Your task to perform on an android device: uninstall "Booking.com: Hotels and more" Image 0: 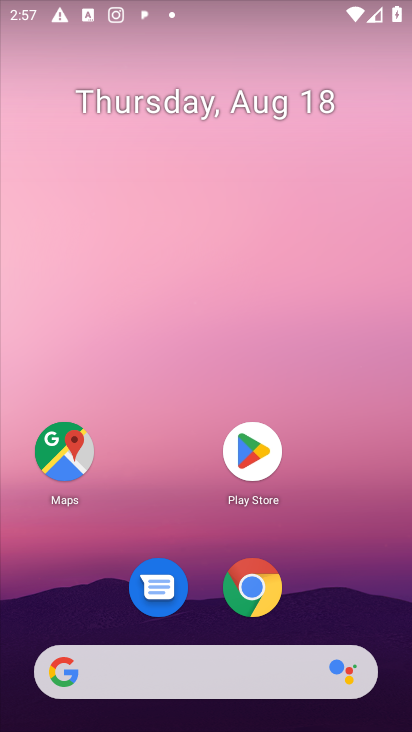
Step 0: click (241, 442)
Your task to perform on an android device: uninstall "Booking.com: Hotels and more" Image 1: 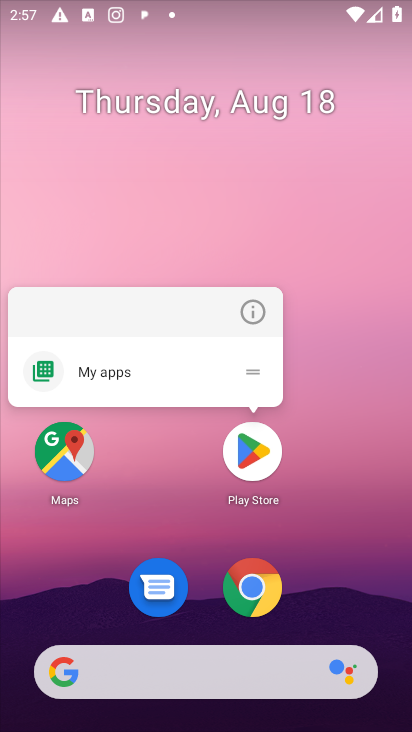
Step 1: click (246, 447)
Your task to perform on an android device: uninstall "Booking.com: Hotels and more" Image 2: 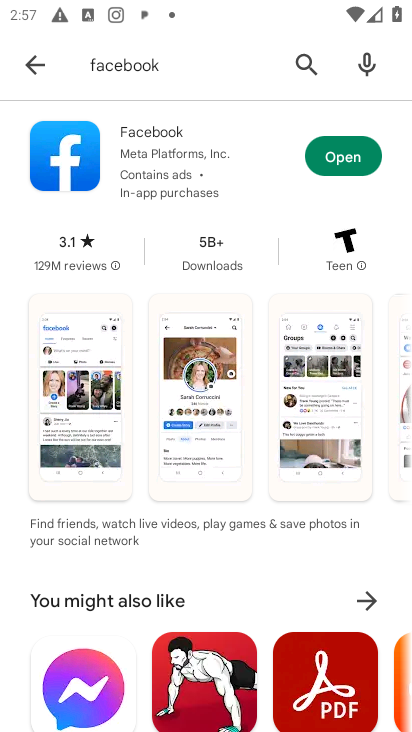
Step 2: click (305, 57)
Your task to perform on an android device: uninstall "Booking.com: Hotels and more" Image 3: 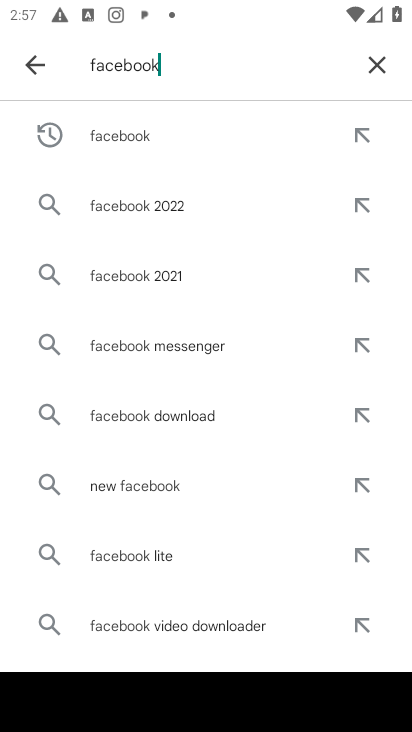
Step 3: click (369, 48)
Your task to perform on an android device: uninstall "Booking.com: Hotels and more" Image 4: 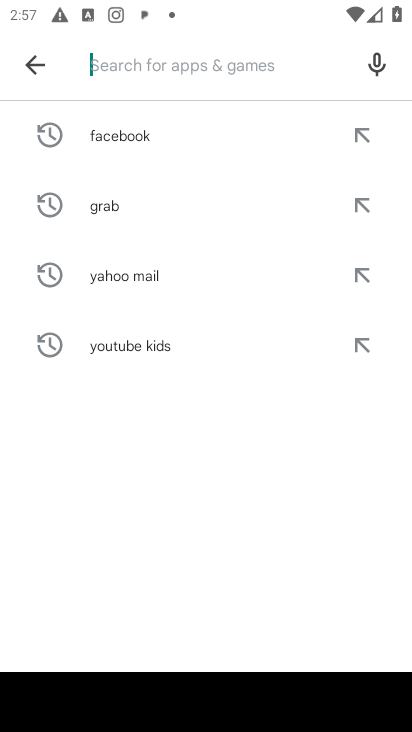
Step 4: type "Booking.com: Hotels and more"
Your task to perform on an android device: uninstall "Booking.com: Hotels and more" Image 5: 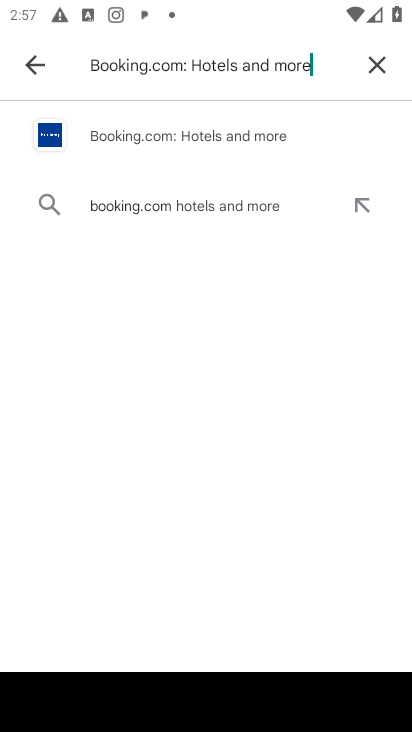
Step 5: click (167, 136)
Your task to perform on an android device: uninstall "Booking.com: Hotels and more" Image 6: 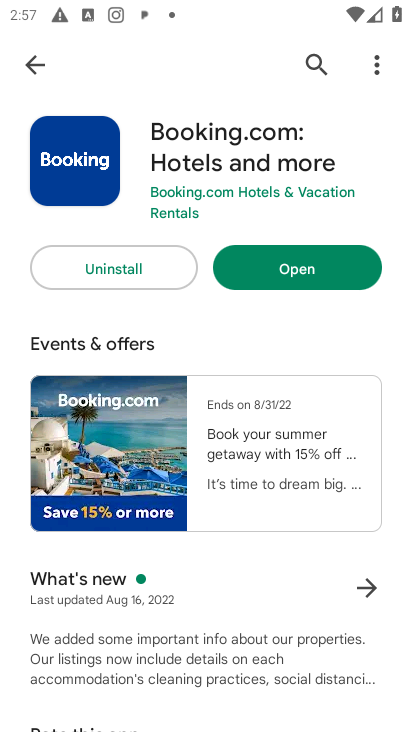
Step 6: click (122, 266)
Your task to perform on an android device: uninstall "Booking.com: Hotels and more" Image 7: 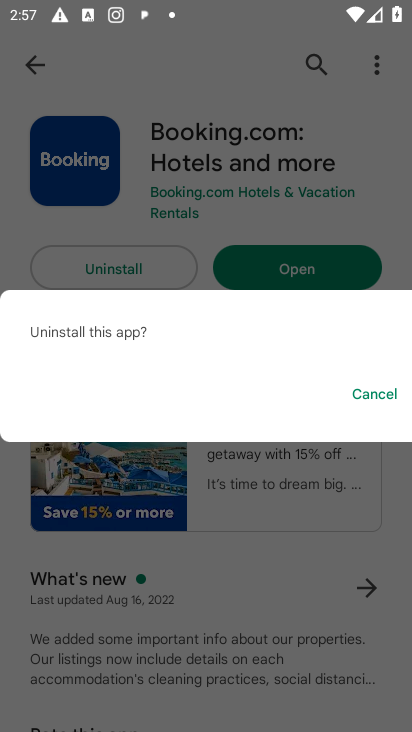
Step 7: click (113, 267)
Your task to perform on an android device: uninstall "Booking.com: Hotels and more" Image 8: 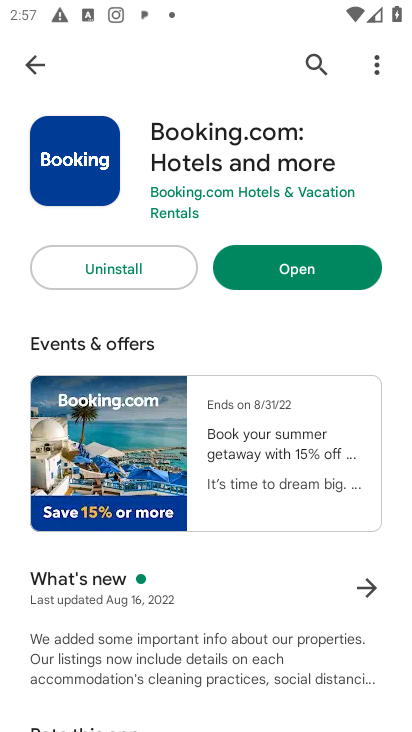
Step 8: click (125, 267)
Your task to perform on an android device: uninstall "Booking.com: Hotels and more" Image 9: 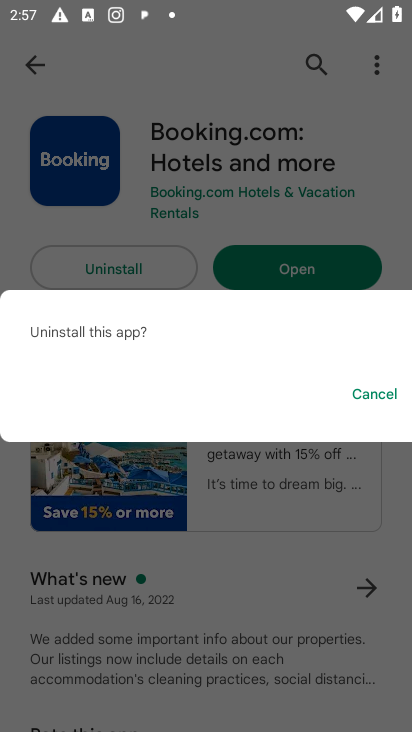
Step 9: click (110, 329)
Your task to perform on an android device: uninstall "Booking.com: Hotels and more" Image 10: 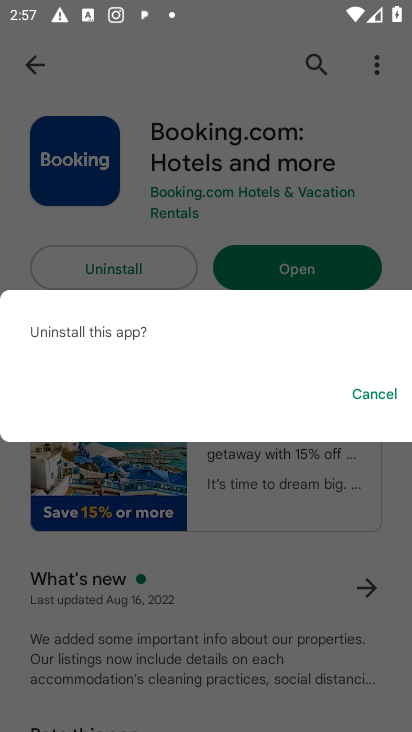
Step 10: click (351, 397)
Your task to perform on an android device: uninstall "Booking.com: Hotels and more" Image 11: 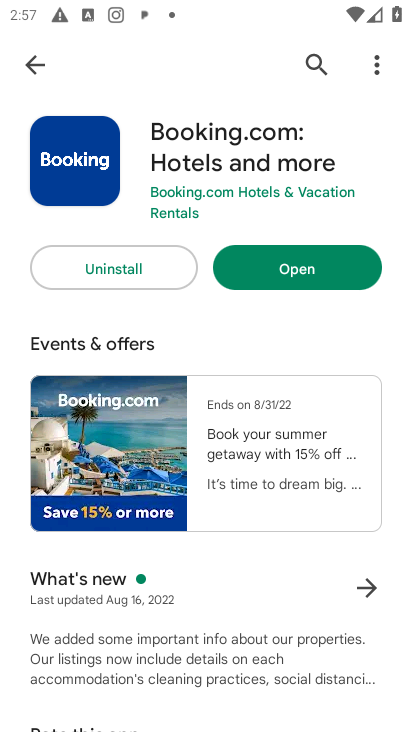
Step 11: drag from (216, 592) to (193, 666)
Your task to perform on an android device: uninstall "Booking.com: Hotels and more" Image 12: 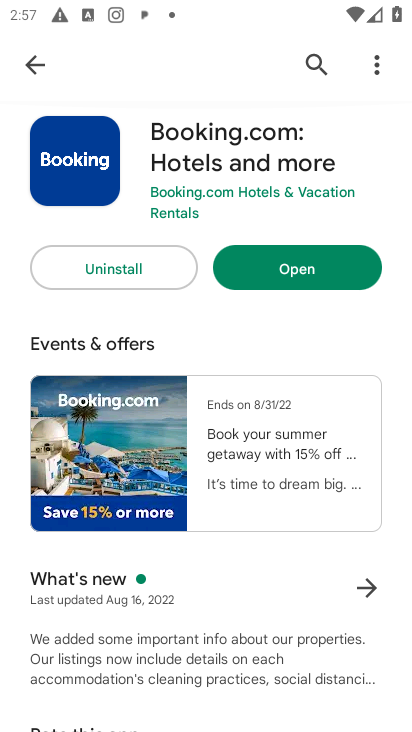
Step 12: click (93, 273)
Your task to perform on an android device: uninstall "Booking.com: Hotels and more" Image 13: 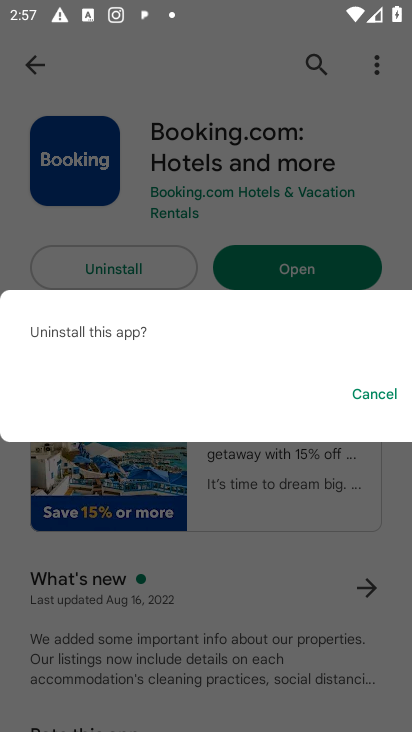
Step 13: click (314, 402)
Your task to perform on an android device: uninstall "Booking.com: Hotels and more" Image 14: 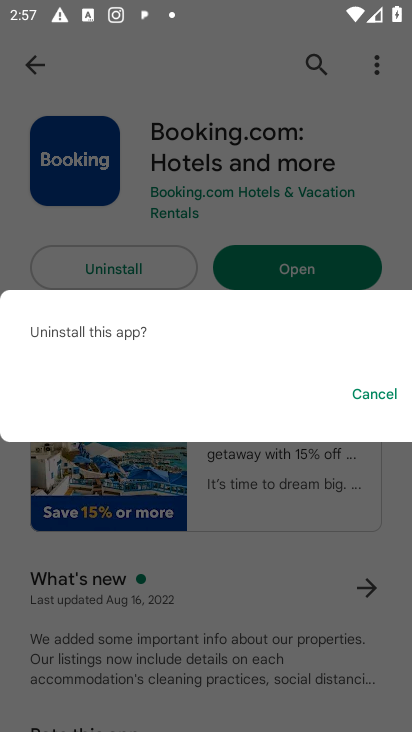
Step 14: click (314, 402)
Your task to perform on an android device: uninstall "Booking.com: Hotels and more" Image 15: 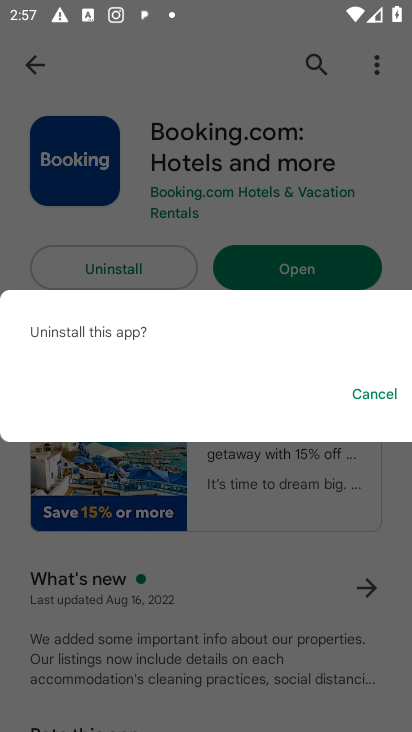
Step 15: click (339, 377)
Your task to perform on an android device: uninstall "Booking.com: Hotels and more" Image 16: 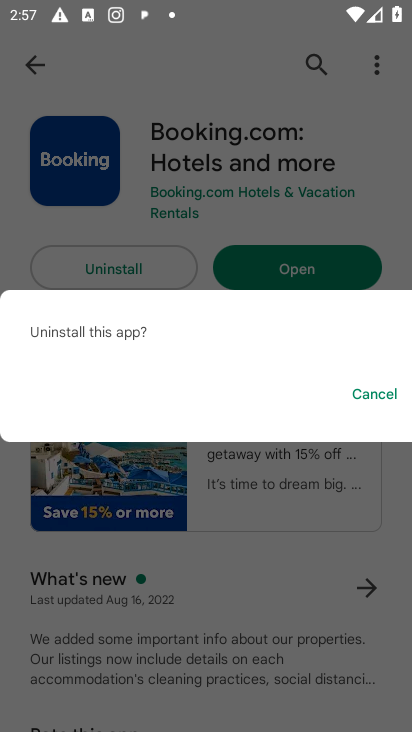
Step 16: click (379, 408)
Your task to perform on an android device: uninstall "Booking.com: Hotels and more" Image 17: 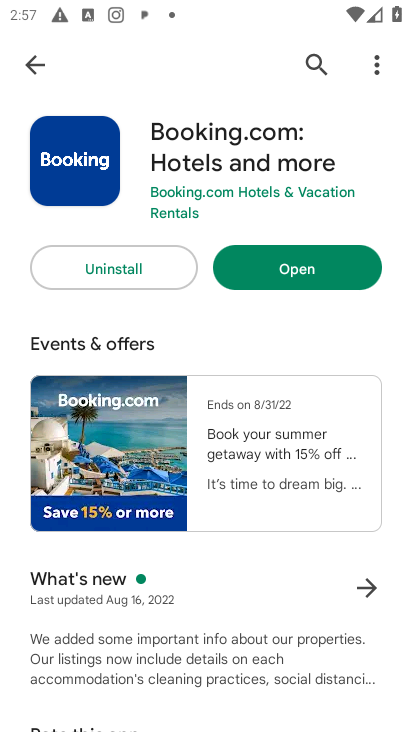
Step 17: task complete